Your task to perform on an android device: show emergency info Image 0: 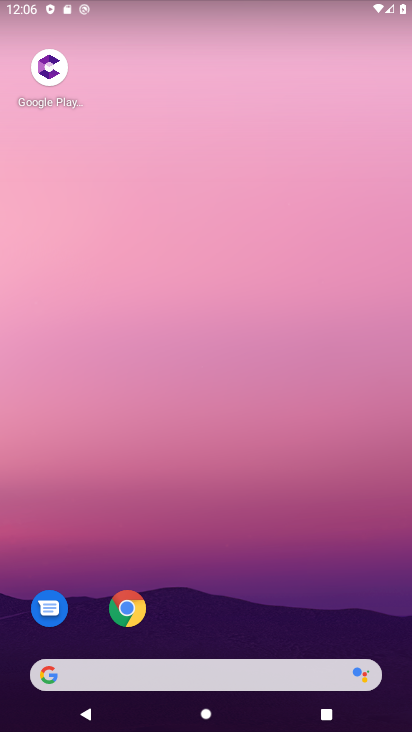
Step 0: drag from (235, 680) to (204, 121)
Your task to perform on an android device: show emergency info Image 1: 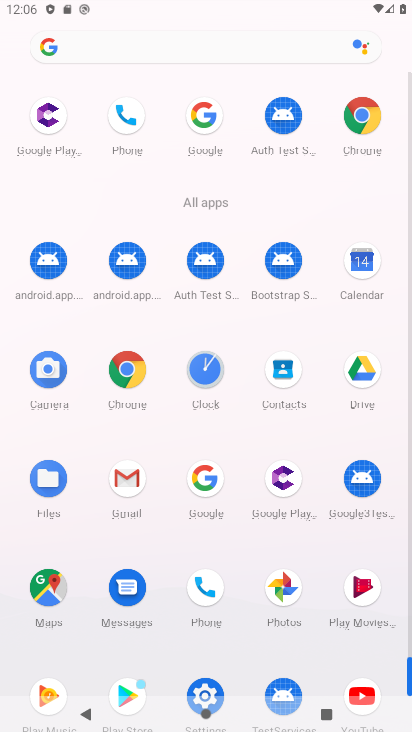
Step 1: drag from (240, 634) to (206, 78)
Your task to perform on an android device: show emergency info Image 2: 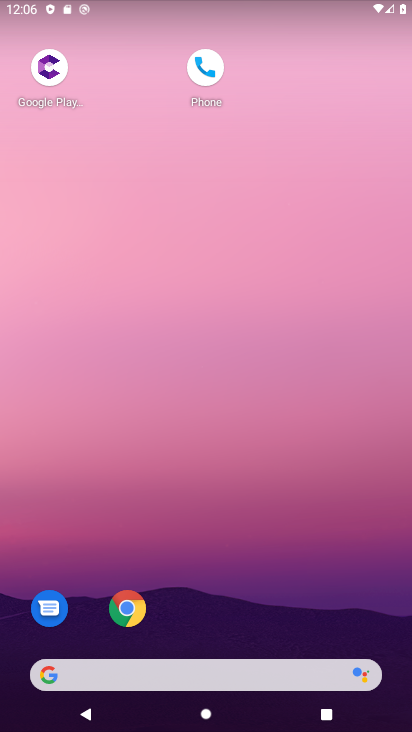
Step 2: click (226, 136)
Your task to perform on an android device: show emergency info Image 3: 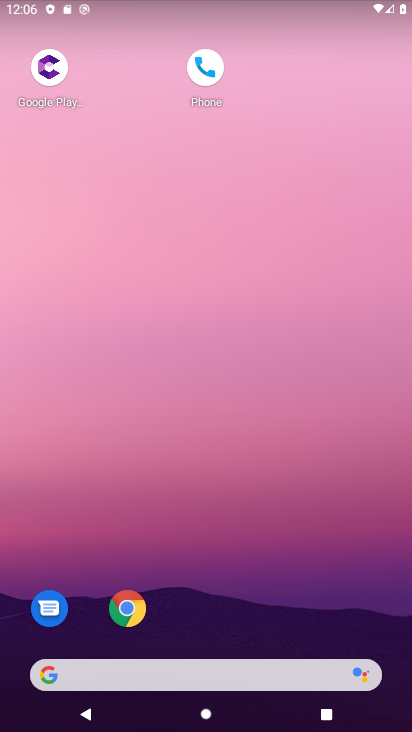
Step 3: drag from (284, 400) to (186, 38)
Your task to perform on an android device: show emergency info Image 4: 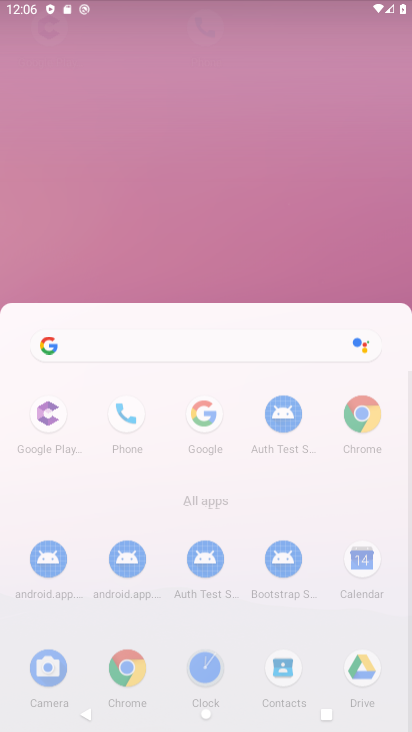
Step 4: drag from (202, 465) to (135, 93)
Your task to perform on an android device: show emergency info Image 5: 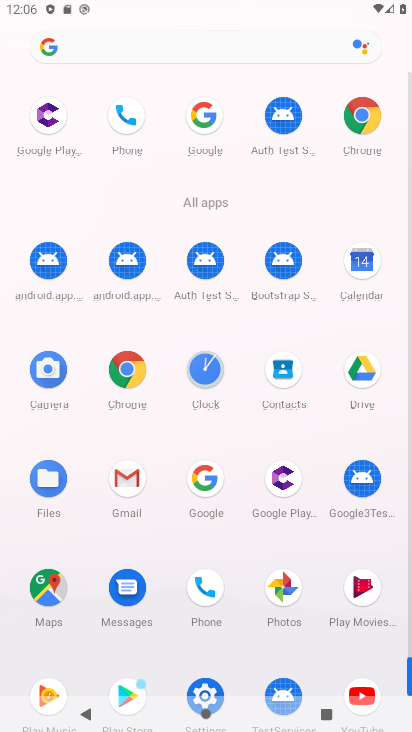
Step 5: drag from (289, 594) to (223, 160)
Your task to perform on an android device: show emergency info Image 6: 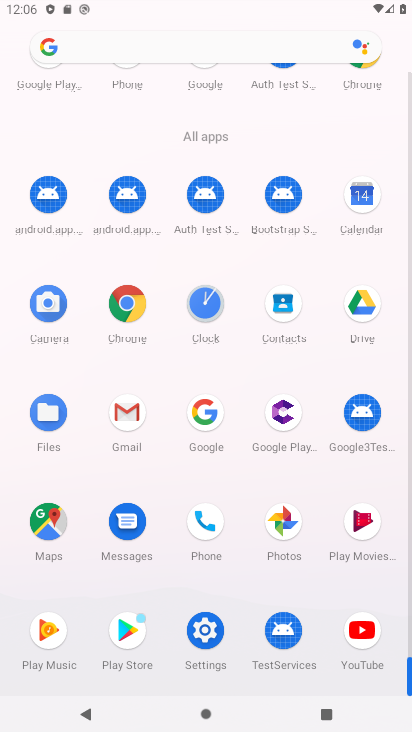
Step 6: click (199, 633)
Your task to perform on an android device: show emergency info Image 7: 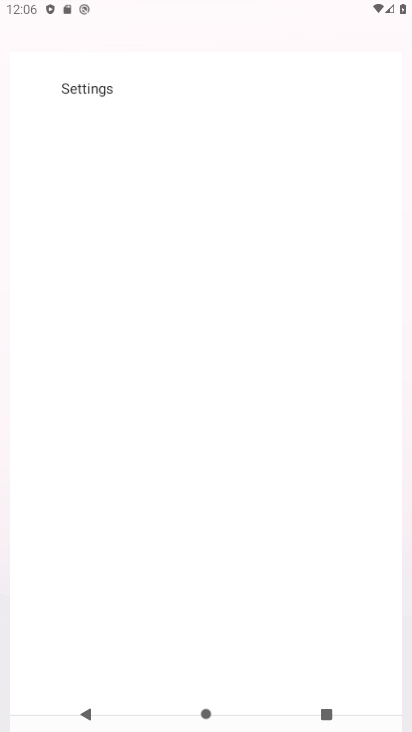
Step 7: click (216, 630)
Your task to perform on an android device: show emergency info Image 8: 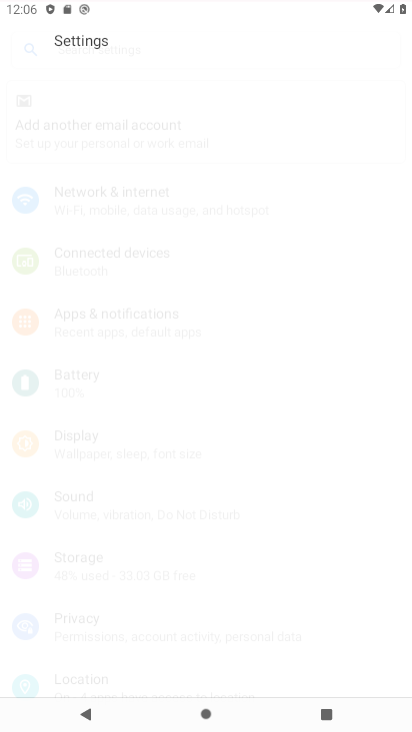
Step 8: click (212, 634)
Your task to perform on an android device: show emergency info Image 9: 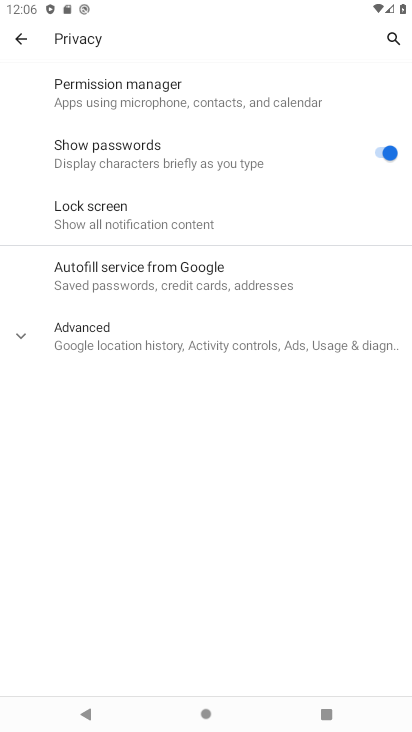
Step 9: click (18, 39)
Your task to perform on an android device: show emergency info Image 10: 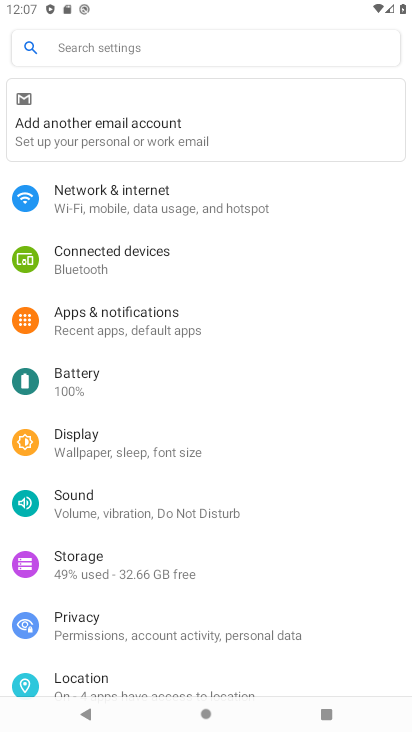
Step 10: drag from (111, 625) to (85, 228)
Your task to perform on an android device: show emergency info Image 11: 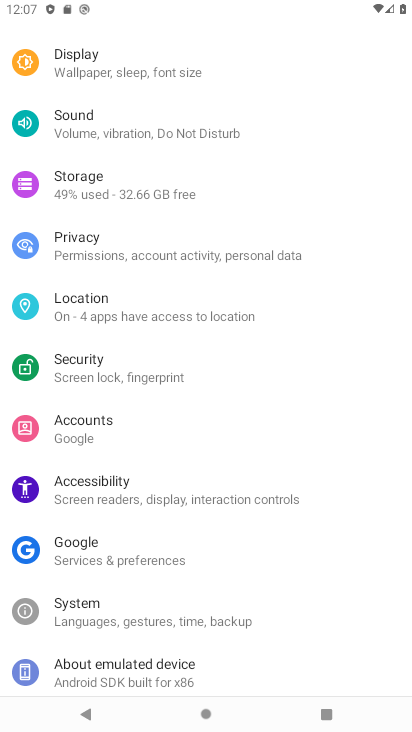
Step 11: click (115, 672)
Your task to perform on an android device: show emergency info Image 12: 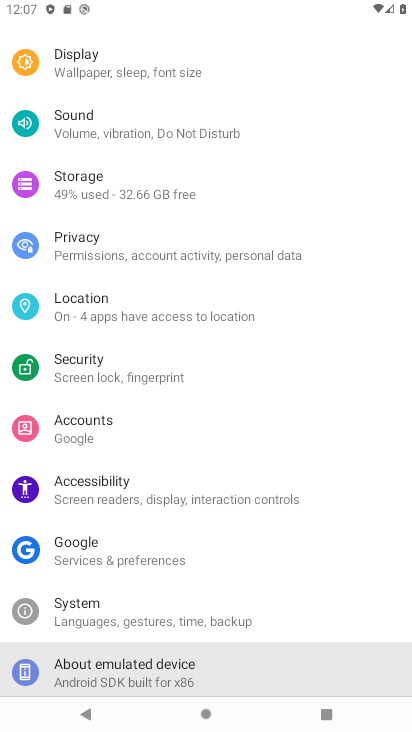
Step 12: click (115, 672)
Your task to perform on an android device: show emergency info Image 13: 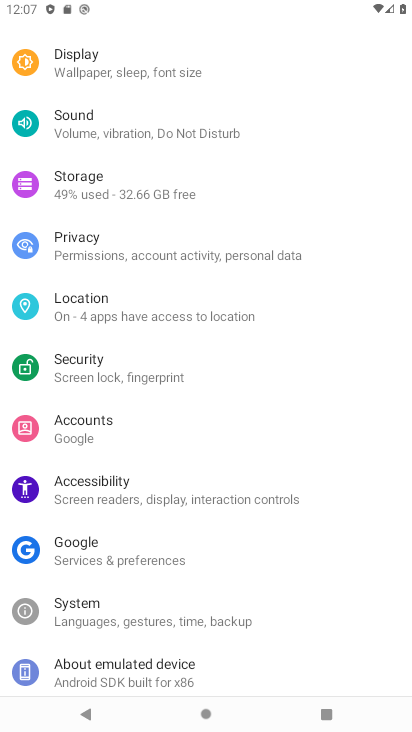
Step 13: click (115, 672)
Your task to perform on an android device: show emergency info Image 14: 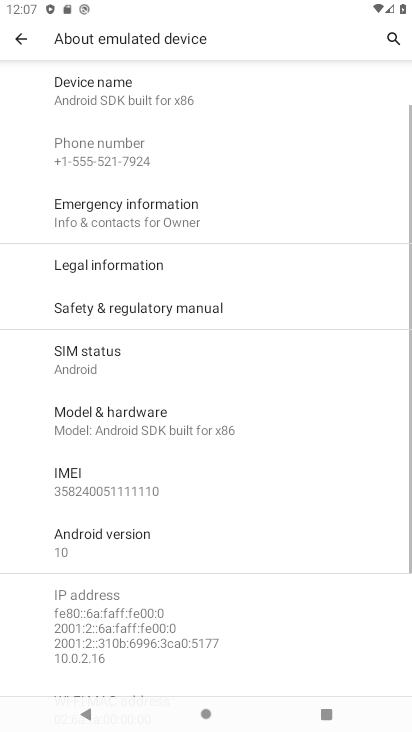
Step 14: task complete